Your task to perform on an android device: change alarm snooze length Image 0: 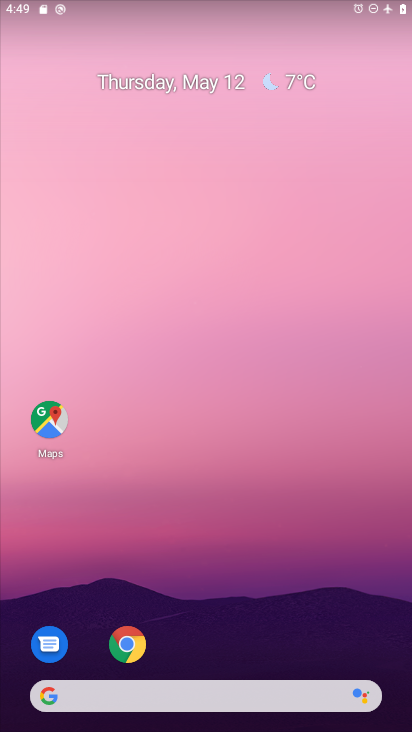
Step 0: drag from (227, 585) to (347, 129)
Your task to perform on an android device: change alarm snooze length Image 1: 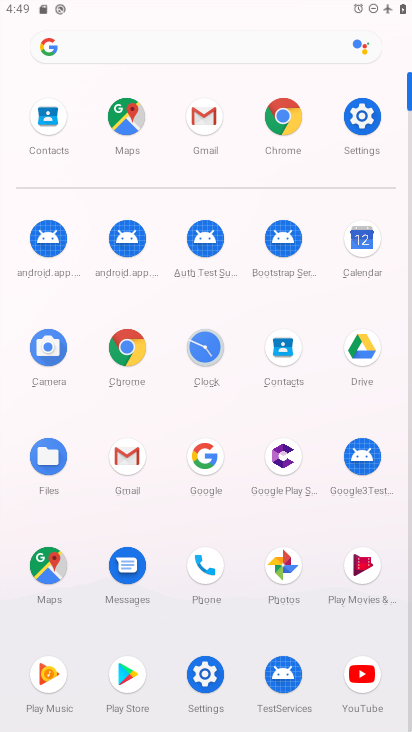
Step 1: click (208, 346)
Your task to perform on an android device: change alarm snooze length Image 2: 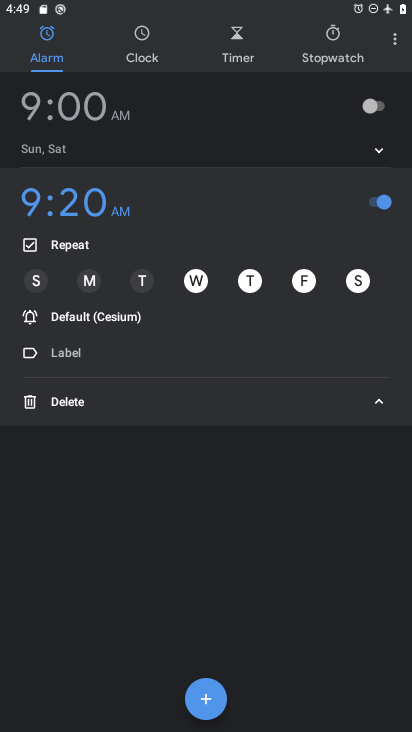
Step 2: click (388, 50)
Your task to perform on an android device: change alarm snooze length Image 3: 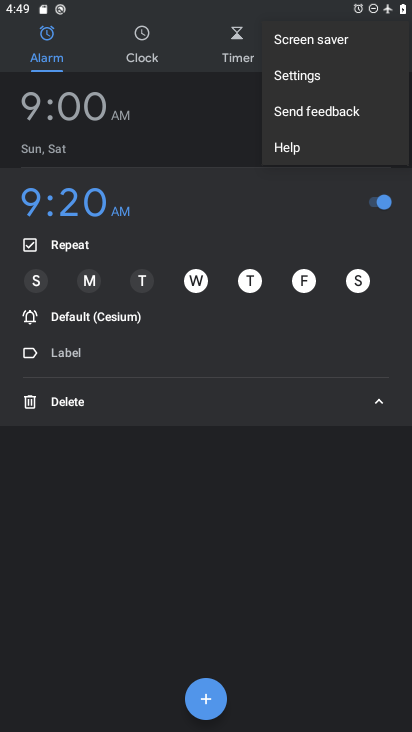
Step 3: click (313, 86)
Your task to perform on an android device: change alarm snooze length Image 4: 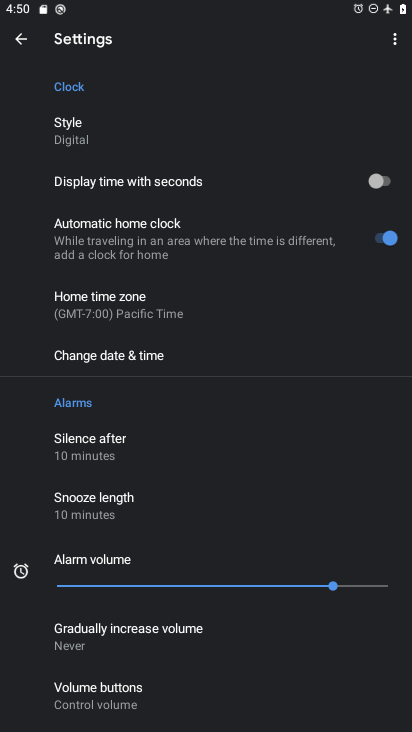
Step 4: click (102, 503)
Your task to perform on an android device: change alarm snooze length Image 5: 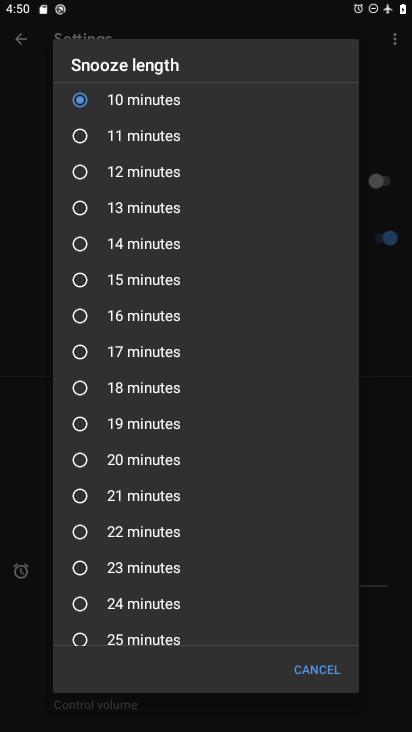
Step 5: click (80, 497)
Your task to perform on an android device: change alarm snooze length Image 6: 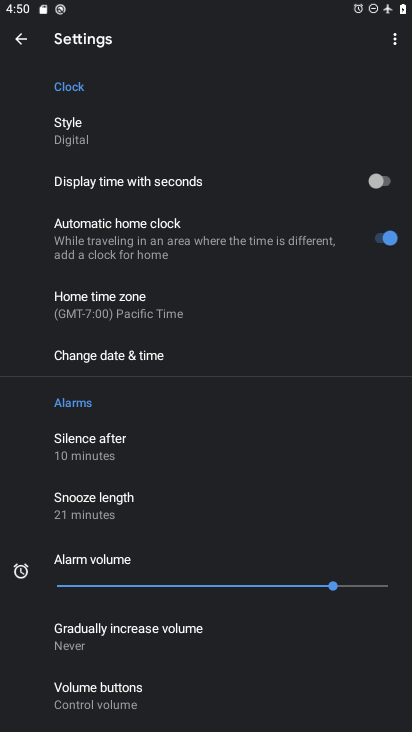
Step 6: task complete